Your task to perform on an android device: Go to internet settings Image 0: 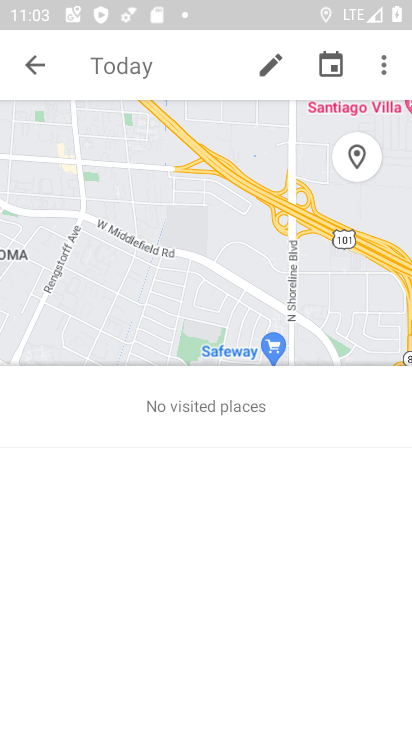
Step 0: press home button
Your task to perform on an android device: Go to internet settings Image 1: 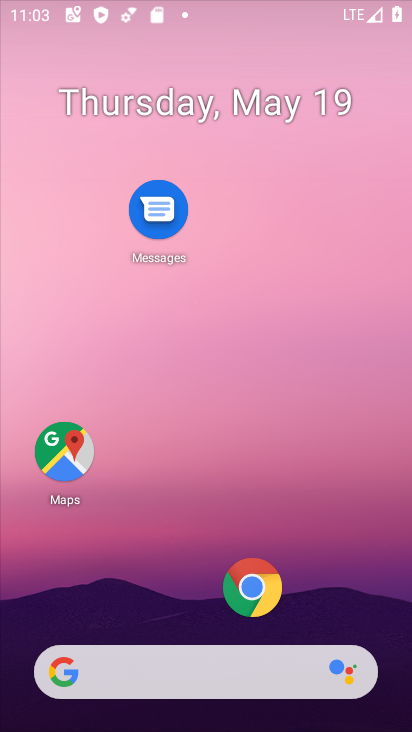
Step 1: drag from (243, 12) to (292, 603)
Your task to perform on an android device: Go to internet settings Image 2: 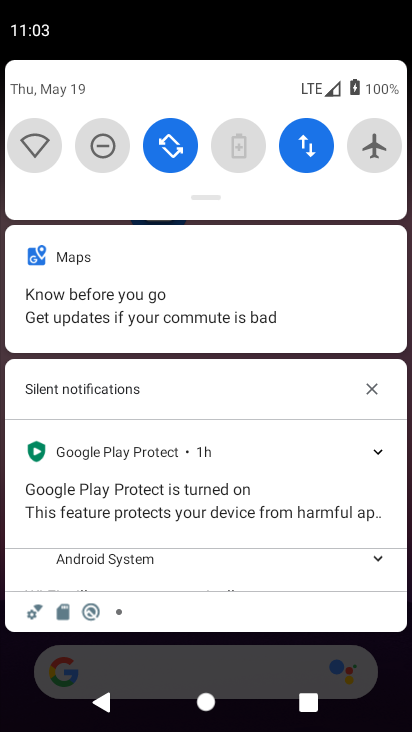
Step 2: click (311, 158)
Your task to perform on an android device: Go to internet settings Image 3: 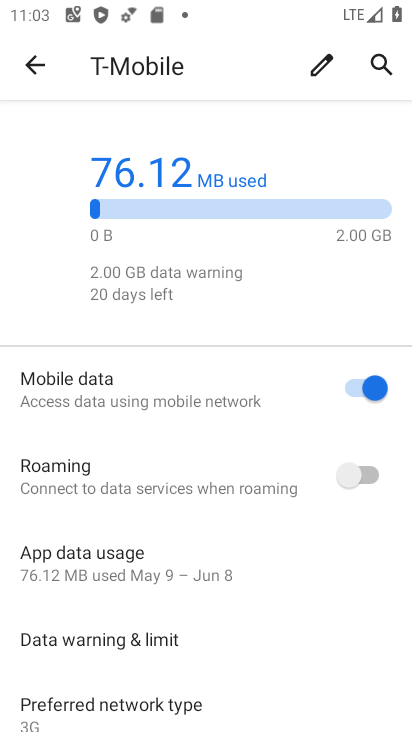
Step 3: task complete